Your task to perform on an android device: Go to display settings Image 0: 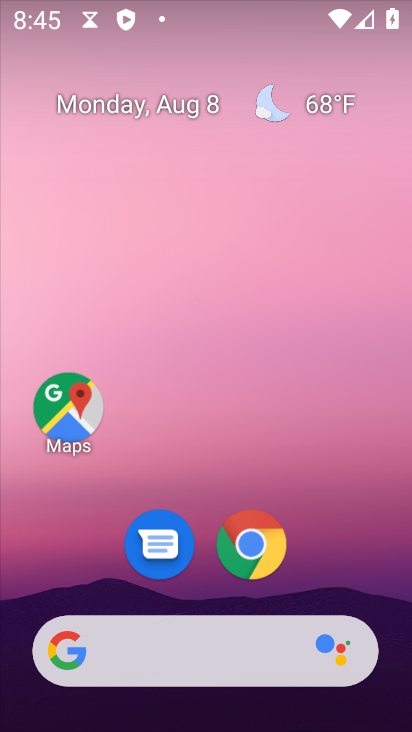
Step 0: press home button
Your task to perform on an android device: Go to display settings Image 1: 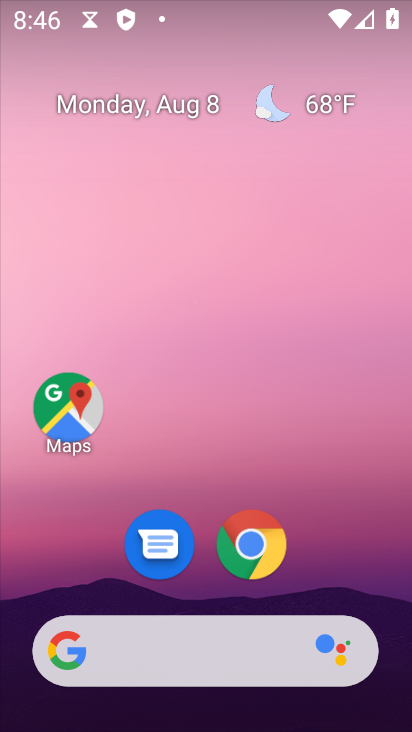
Step 1: drag from (319, 578) to (354, 21)
Your task to perform on an android device: Go to display settings Image 2: 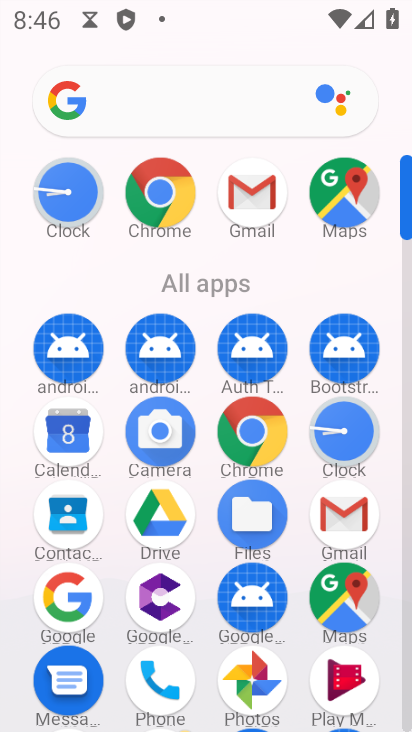
Step 2: drag from (202, 636) to (228, 161)
Your task to perform on an android device: Go to display settings Image 3: 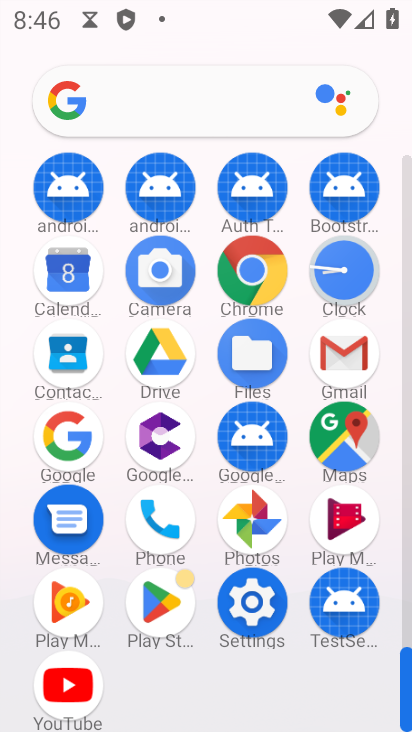
Step 3: click (248, 589)
Your task to perform on an android device: Go to display settings Image 4: 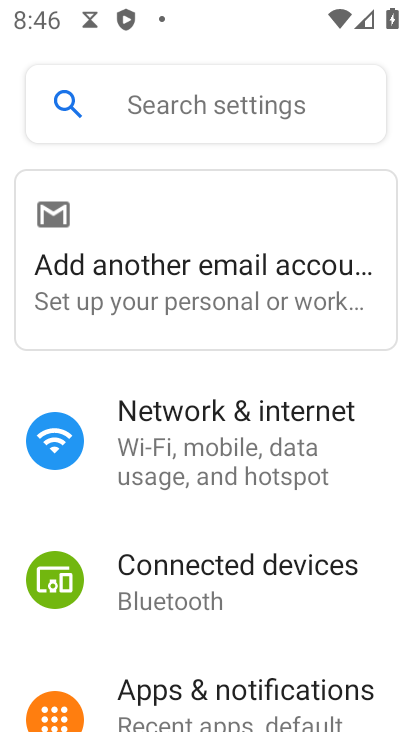
Step 4: drag from (214, 662) to (250, 153)
Your task to perform on an android device: Go to display settings Image 5: 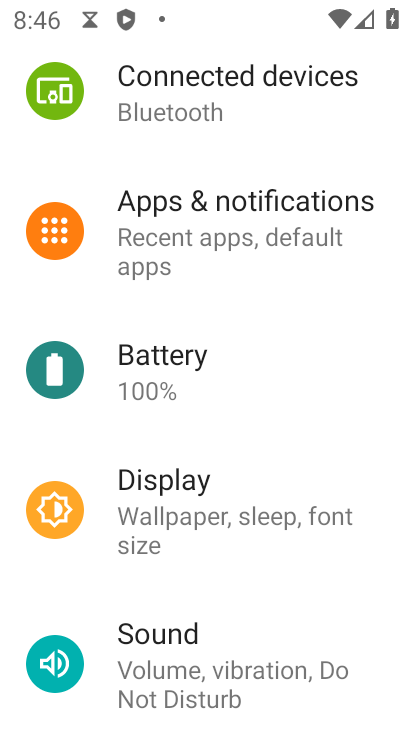
Step 5: click (101, 503)
Your task to perform on an android device: Go to display settings Image 6: 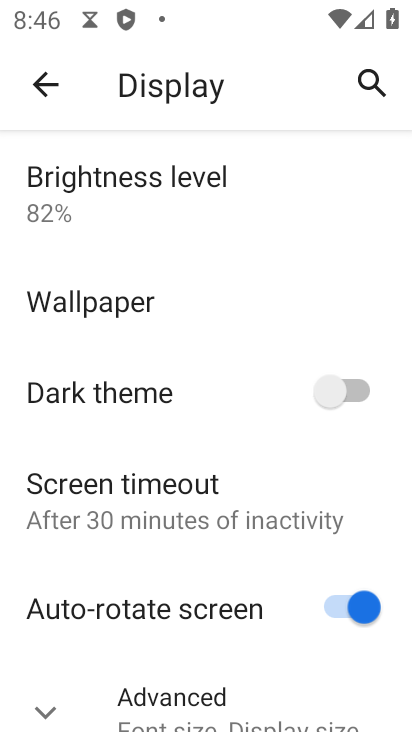
Step 6: drag from (158, 666) to (185, 122)
Your task to perform on an android device: Go to display settings Image 7: 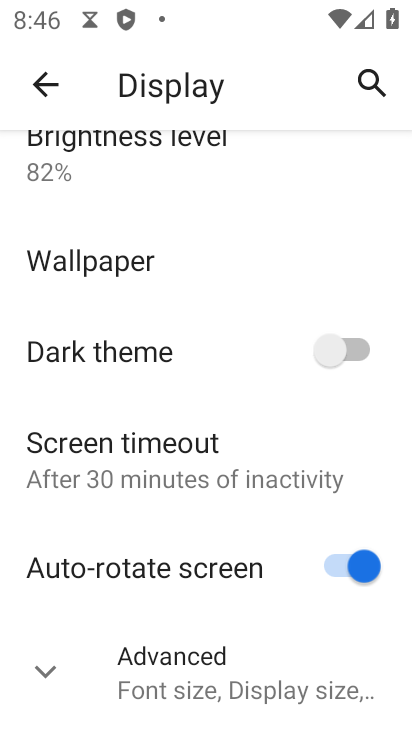
Step 7: click (44, 668)
Your task to perform on an android device: Go to display settings Image 8: 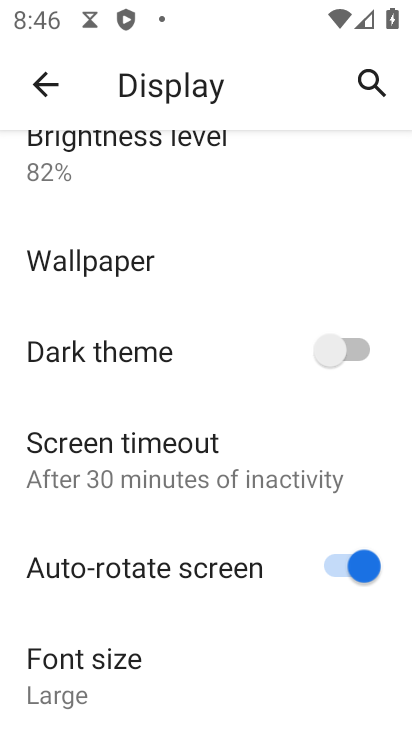
Step 8: task complete